Your task to perform on an android device: Open ESPN.com Image 0: 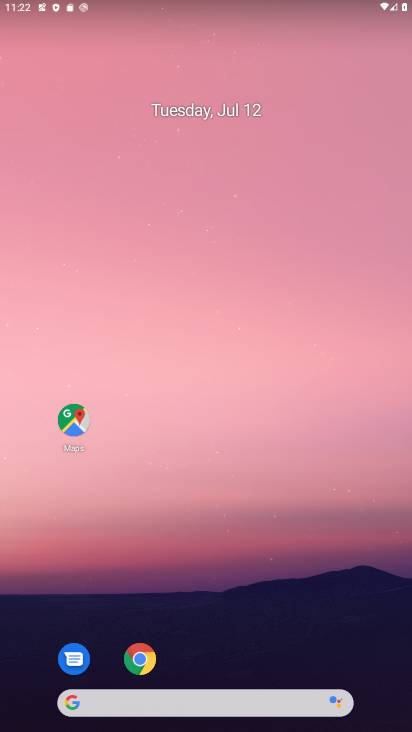
Step 0: drag from (181, 564) to (184, 95)
Your task to perform on an android device: Open ESPN.com Image 1: 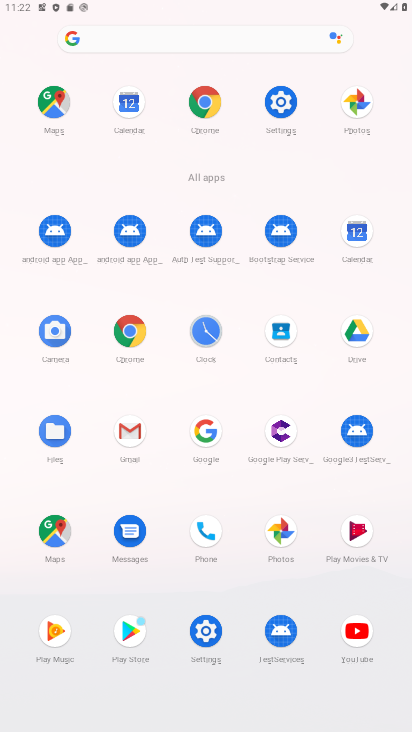
Step 1: click (130, 328)
Your task to perform on an android device: Open ESPN.com Image 2: 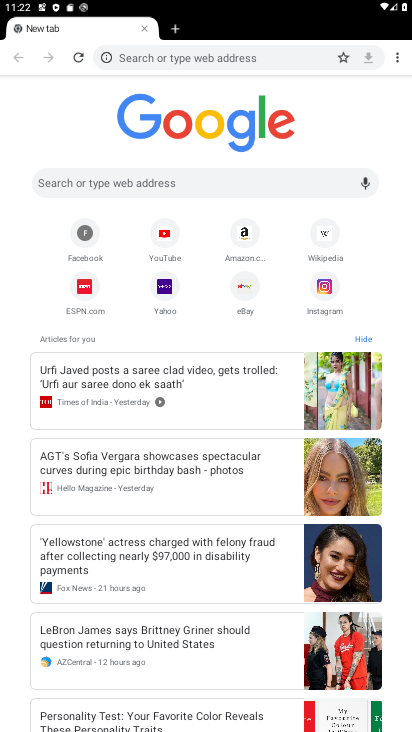
Step 2: click (88, 294)
Your task to perform on an android device: Open ESPN.com Image 3: 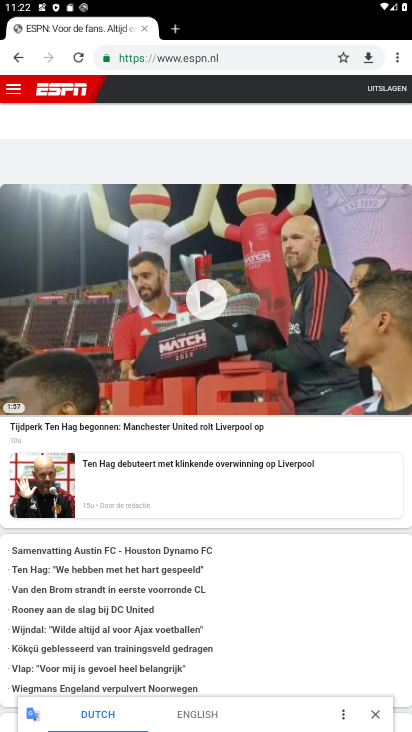
Step 3: task complete